Your task to perform on an android device: empty trash in google photos Image 0: 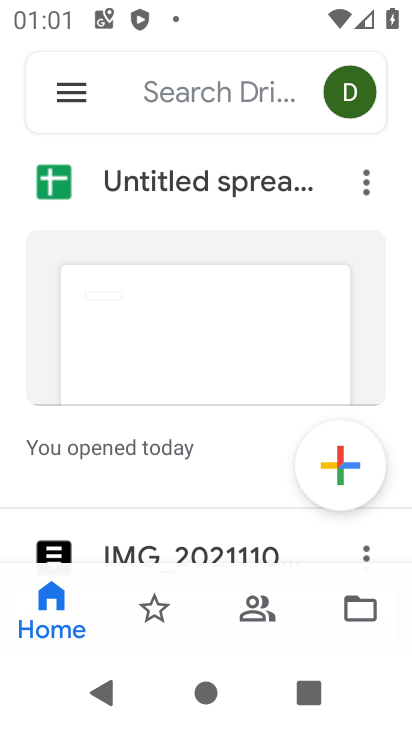
Step 0: press home button
Your task to perform on an android device: empty trash in google photos Image 1: 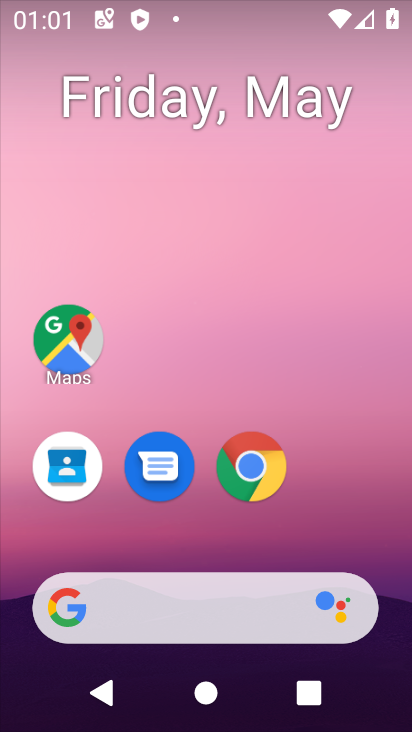
Step 1: drag from (237, 182) to (273, 0)
Your task to perform on an android device: empty trash in google photos Image 2: 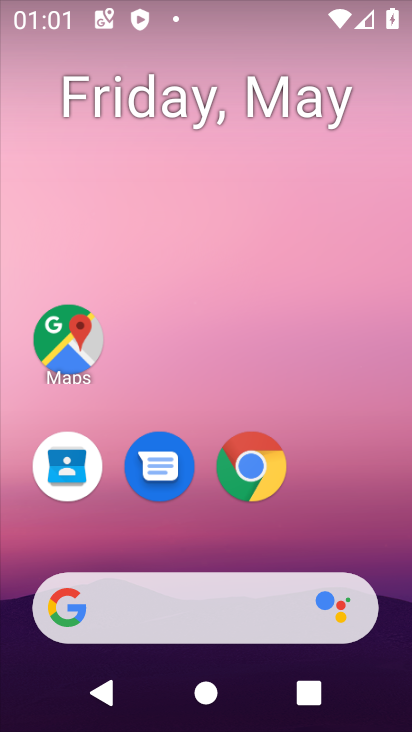
Step 2: drag from (218, 540) to (202, 180)
Your task to perform on an android device: empty trash in google photos Image 3: 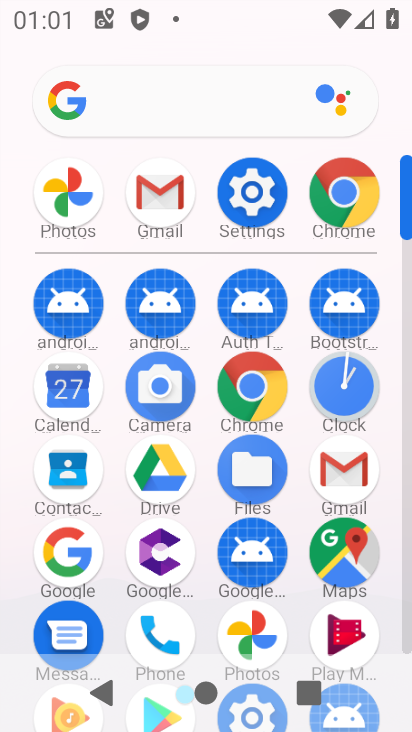
Step 3: click (253, 620)
Your task to perform on an android device: empty trash in google photos Image 4: 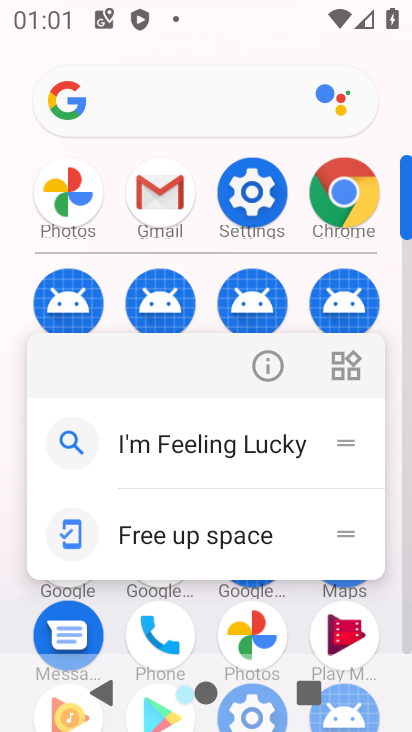
Step 4: click (242, 648)
Your task to perform on an android device: empty trash in google photos Image 5: 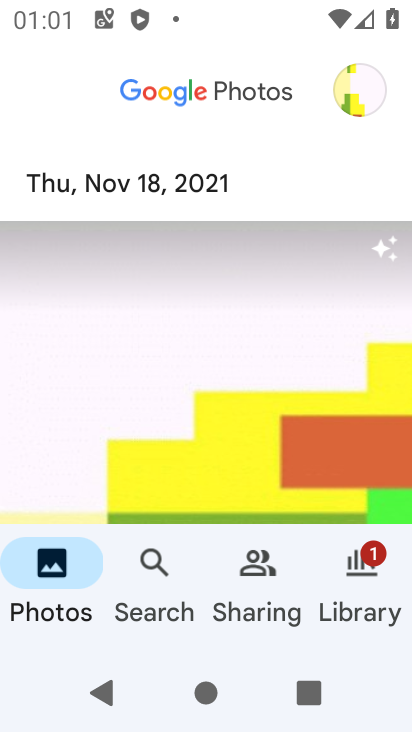
Step 5: click (371, 84)
Your task to perform on an android device: empty trash in google photos Image 6: 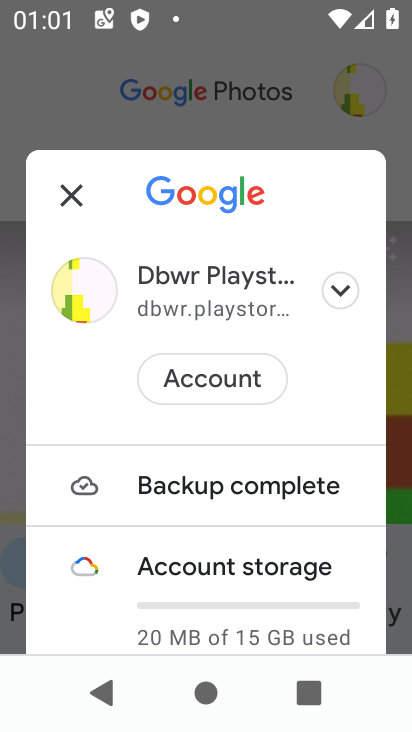
Step 6: click (72, 198)
Your task to perform on an android device: empty trash in google photos Image 7: 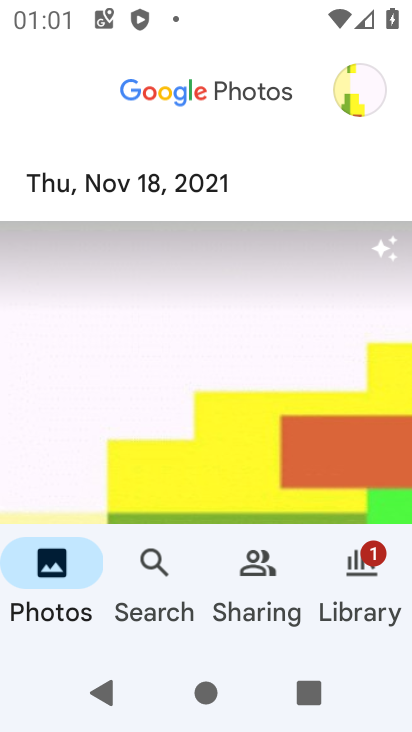
Step 7: click (344, 604)
Your task to perform on an android device: empty trash in google photos Image 8: 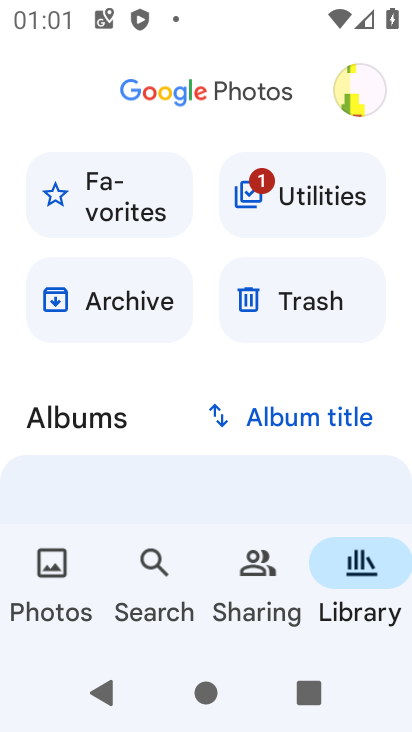
Step 8: click (331, 317)
Your task to perform on an android device: empty trash in google photos Image 9: 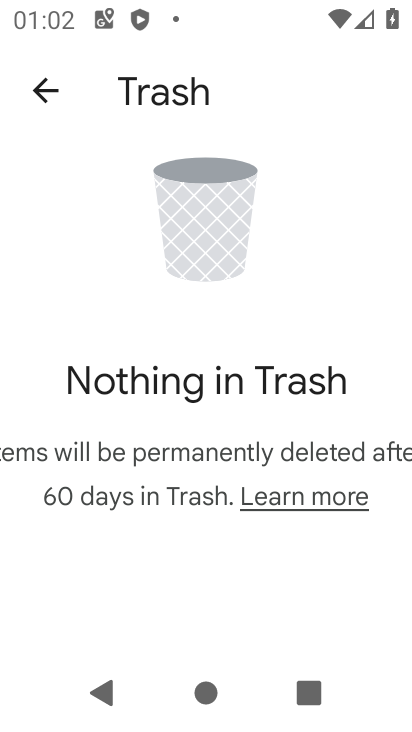
Step 9: task complete